Your task to perform on an android device: see tabs open on other devices in the chrome app Image 0: 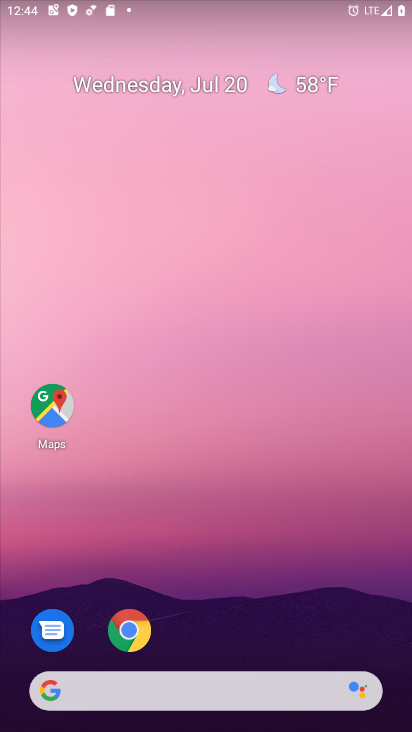
Step 0: drag from (175, 672) to (139, 306)
Your task to perform on an android device: see tabs open on other devices in the chrome app Image 1: 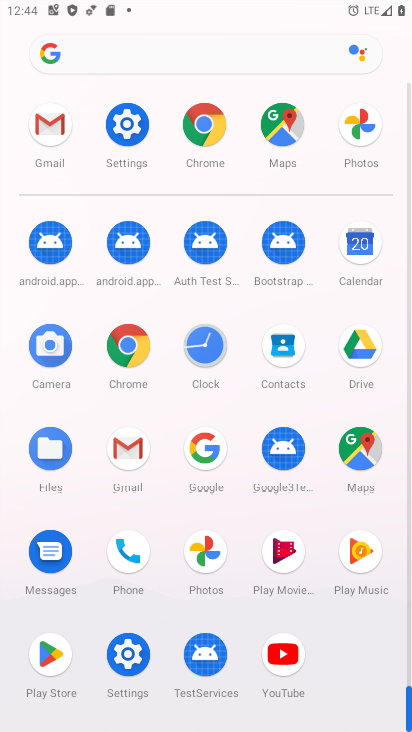
Step 1: click (133, 351)
Your task to perform on an android device: see tabs open on other devices in the chrome app Image 2: 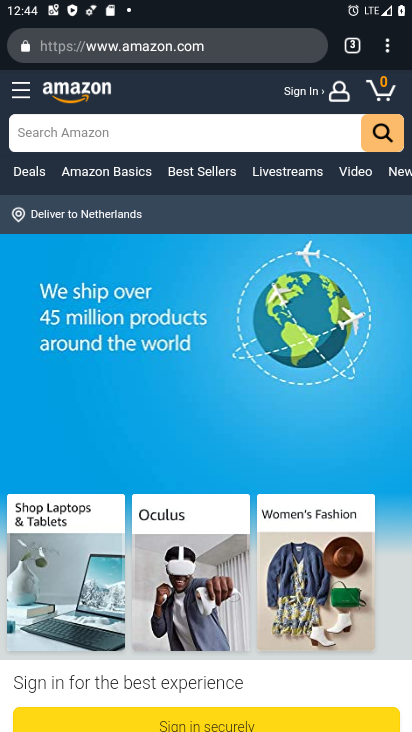
Step 2: task complete